Your task to perform on an android device: Open Yahoo.com Image 0: 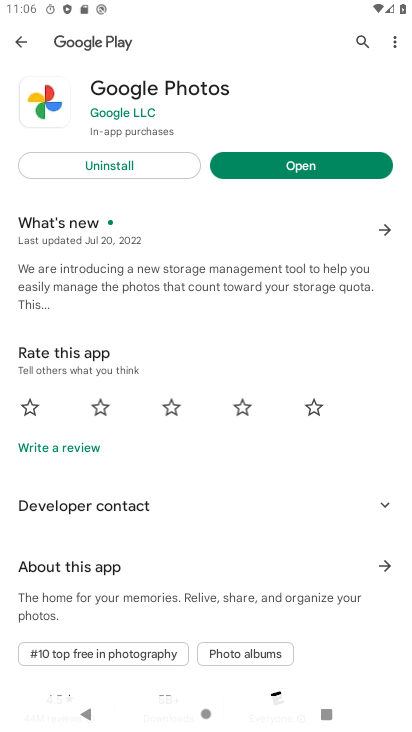
Step 0: press home button
Your task to perform on an android device: Open Yahoo.com Image 1: 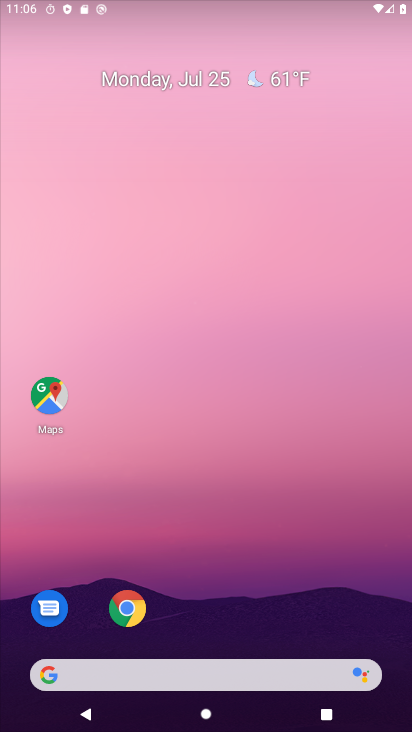
Step 1: drag from (267, 557) to (186, 94)
Your task to perform on an android device: Open Yahoo.com Image 2: 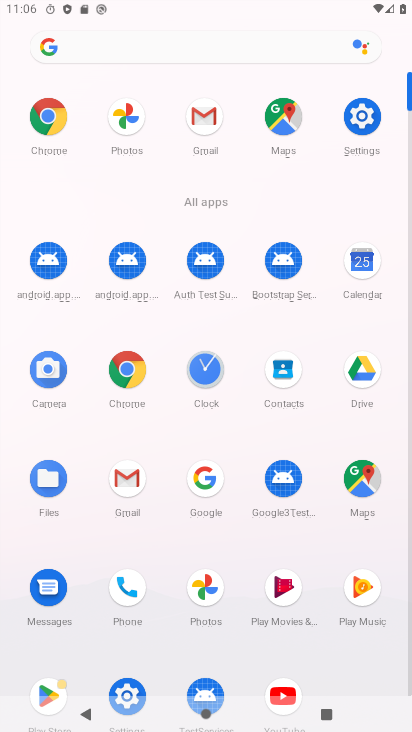
Step 2: click (56, 119)
Your task to perform on an android device: Open Yahoo.com Image 3: 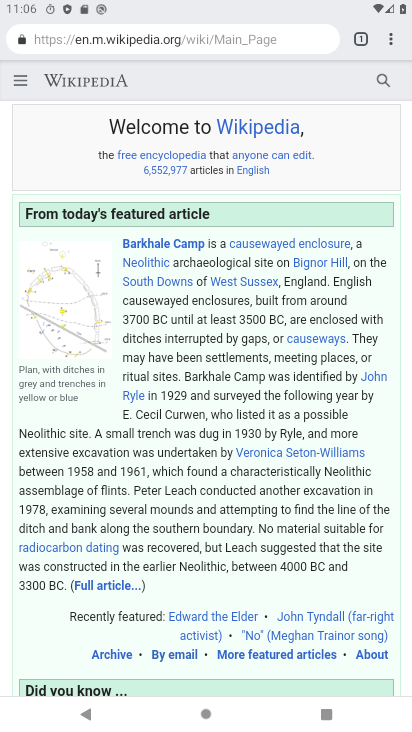
Step 3: press back button
Your task to perform on an android device: Open Yahoo.com Image 4: 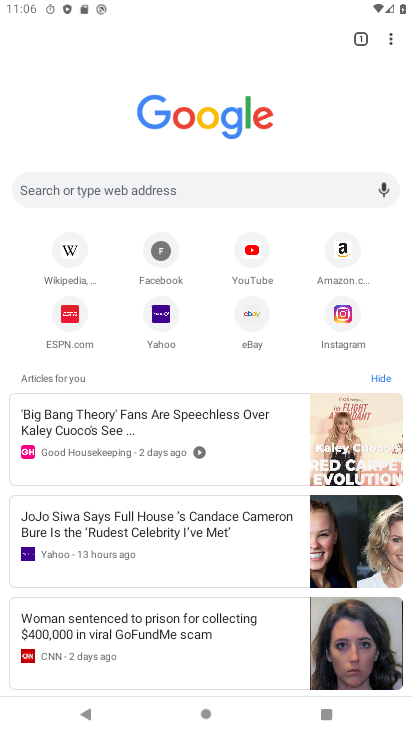
Step 4: click (157, 314)
Your task to perform on an android device: Open Yahoo.com Image 5: 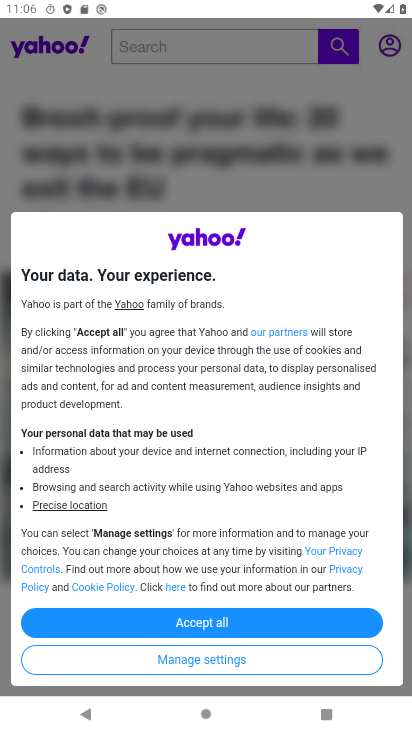
Step 5: task complete